Your task to perform on an android device: Show me recent news Image 0: 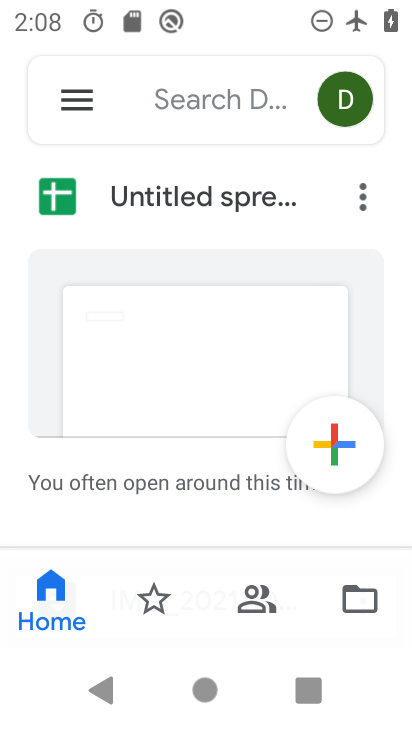
Step 0: press home button
Your task to perform on an android device: Show me recent news Image 1: 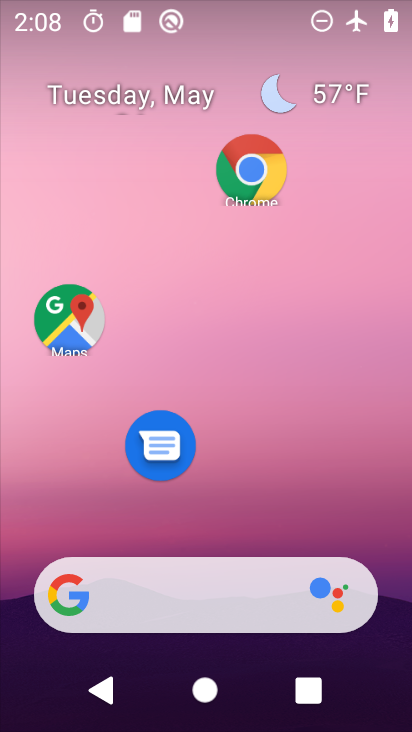
Step 1: task complete